Your task to perform on an android device: Open the phone app and click the voicemail tab. Image 0: 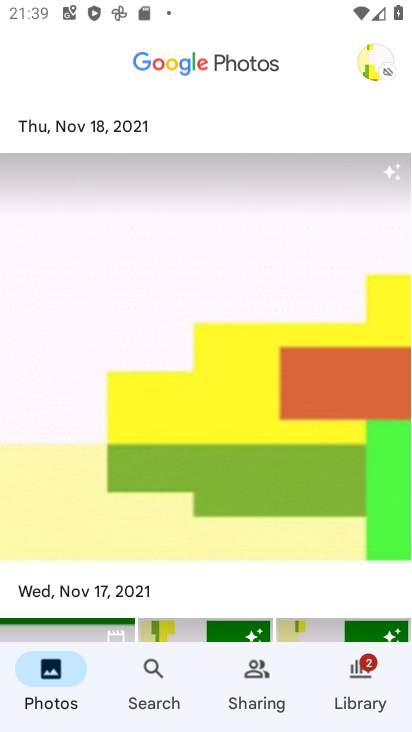
Step 0: press home button
Your task to perform on an android device: Open the phone app and click the voicemail tab. Image 1: 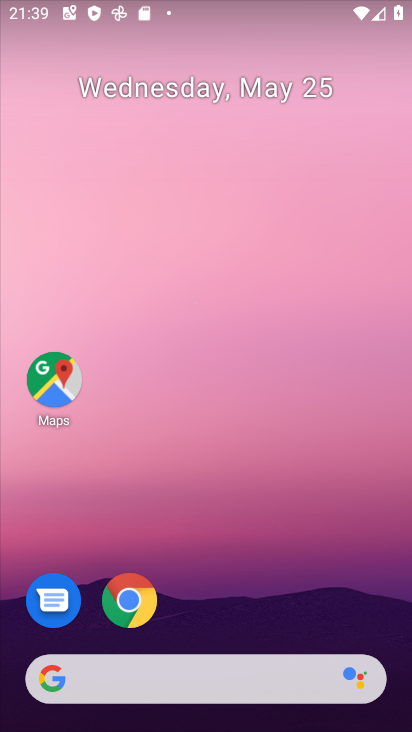
Step 1: drag from (372, 601) to (340, 126)
Your task to perform on an android device: Open the phone app and click the voicemail tab. Image 2: 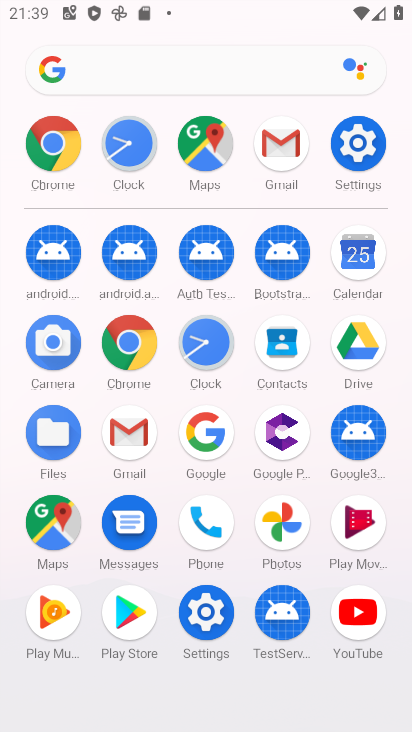
Step 2: click (204, 530)
Your task to perform on an android device: Open the phone app and click the voicemail tab. Image 3: 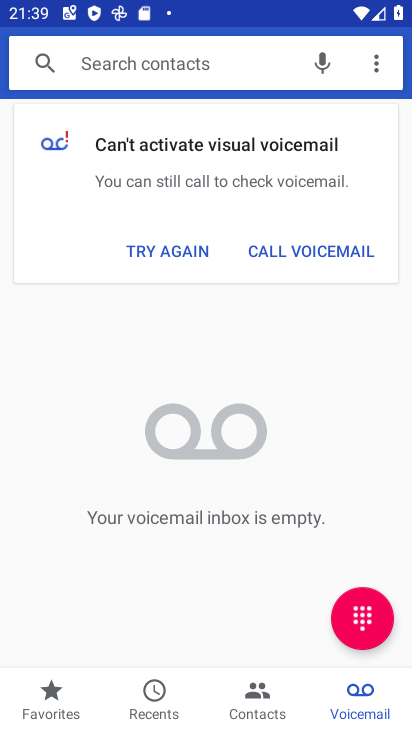
Step 3: click (372, 708)
Your task to perform on an android device: Open the phone app and click the voicemail tab. Image 4: 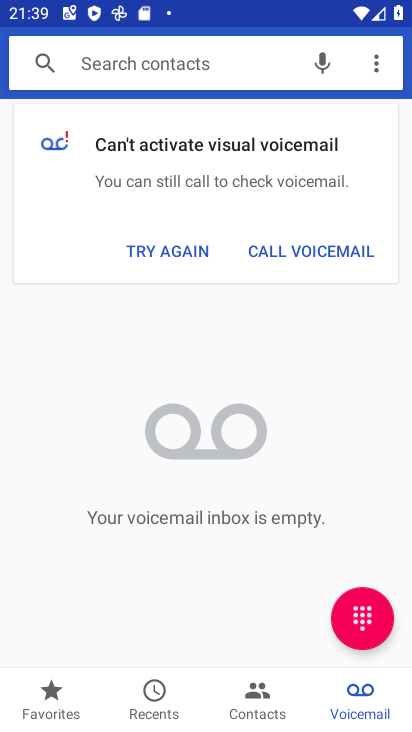
Step 4: task complete